Your task to perform on an android device: Show me popular games on the Play Store Image 0: 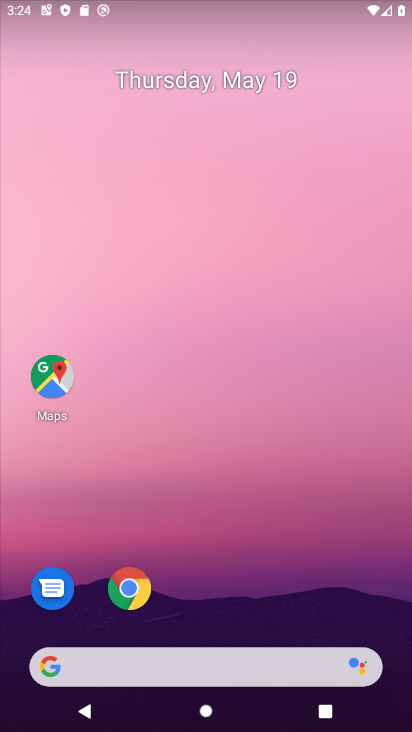
Step 0: drag from (191, 633) to (409, 102)
Your task to perform on an android device: Show me popular games on the Play Store Image 1: 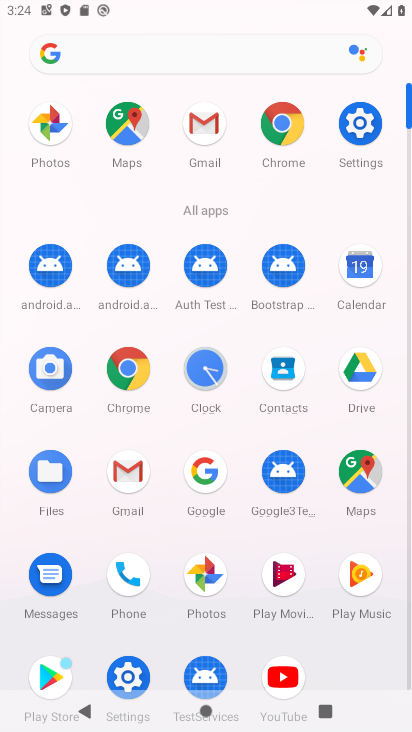
Step 1: click (56, 665)
Your task to perform on an android device: Show me popular games on the Play Store Image 2: 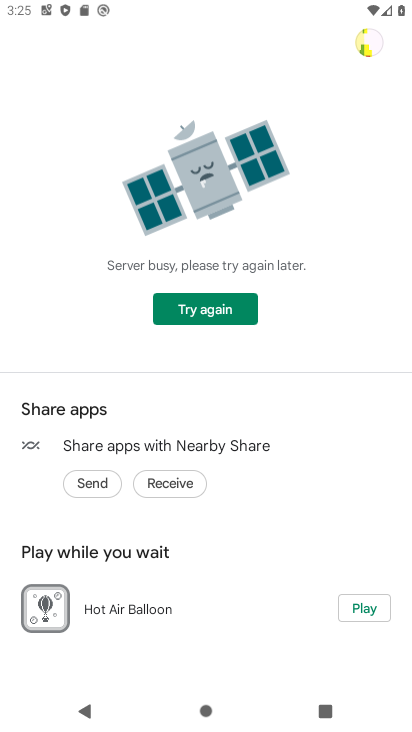
Step 2: task complete